Your task to perform on an android device: Do I have any events today? Image 0: 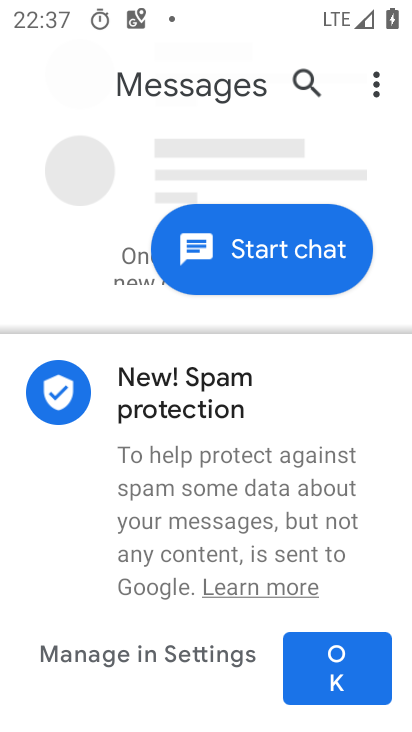
Step 0: press home button
Your task to perform on an android device: Do I have any events today? Image 1: 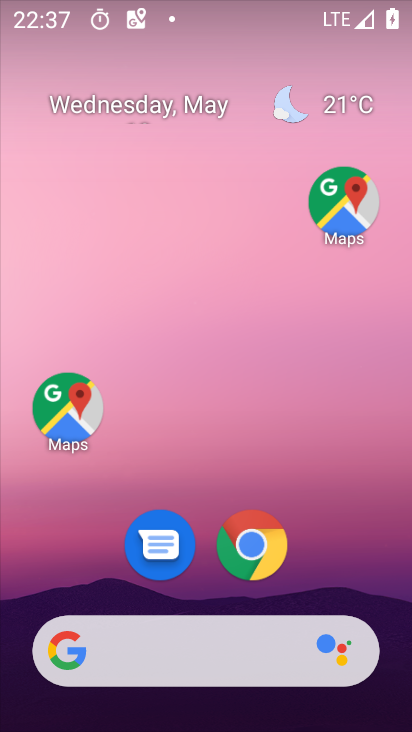
Step 1: drag from (313, 596) to (376, 46)
Your task to perform on an android device: Do I have any events today? Image 2: 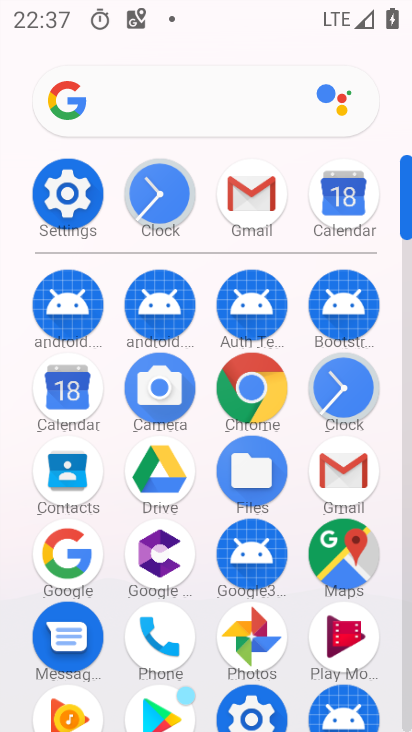
Step 2: click (75, 405)
Your task to perform on an android device: Do I have any events today? Image 3: 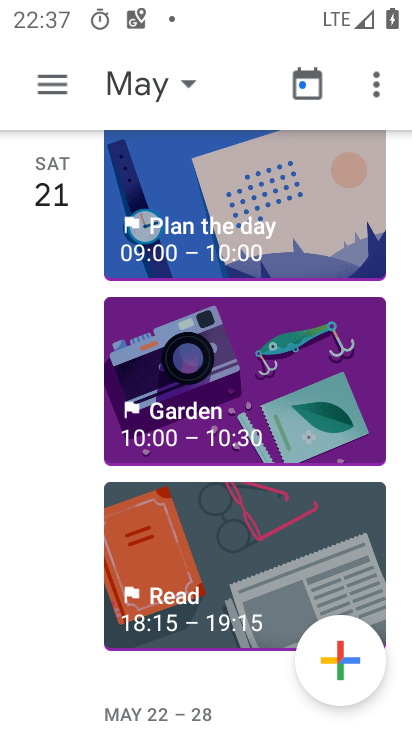
Step 3: click (173, 98)
Your task to perform on an android device: Do I have any events today? Image 4: 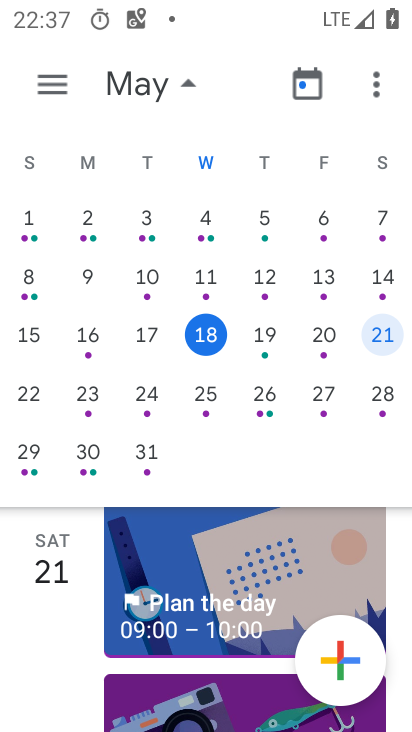
Step 4: click (214, 342)
Your task to perform on an android device: Do I have any events today? Image 5: 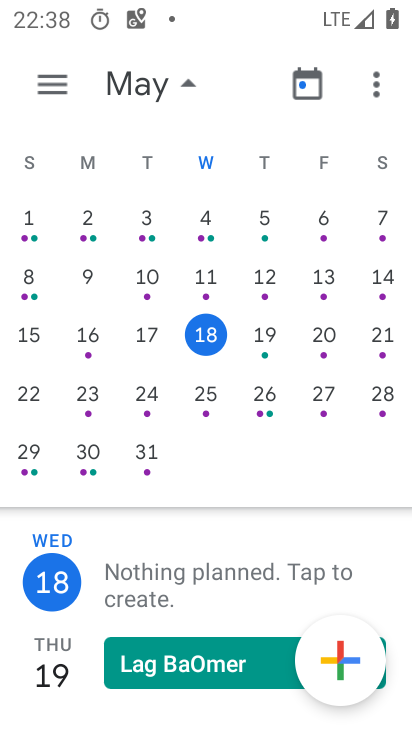
Step 5: task complete